Your task to perform on an android device: Clear the shopping cart on target.com. Search for amazon basics triple a on target.com, select the first entry, and add it to the cart. Image 0: 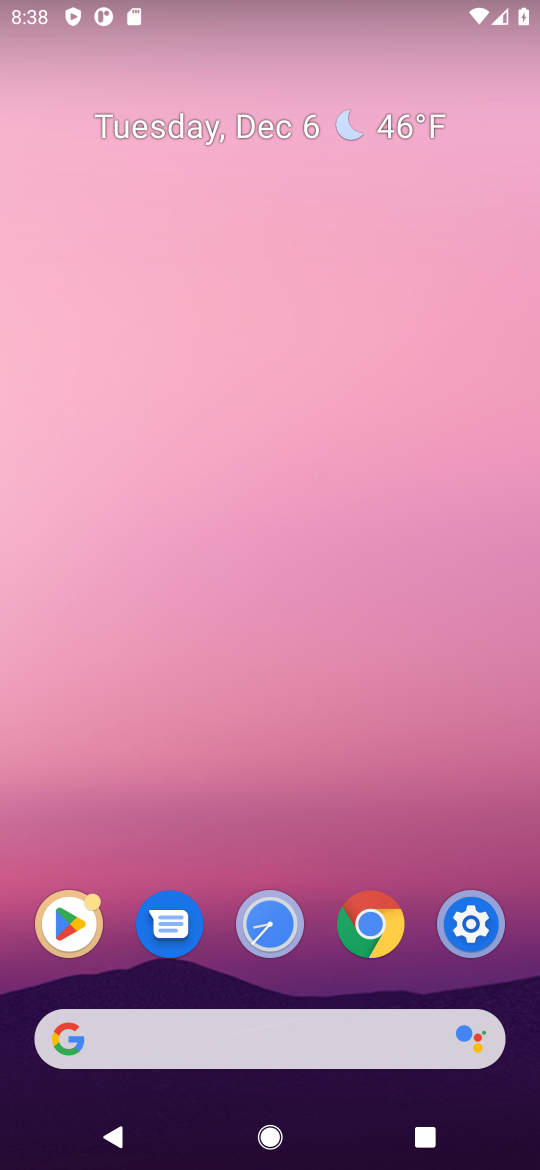
Step 0: click (347, 1019)
Your task to perform on an android device: Clear the shopping cart on target.com. Search for amazon basics triple a on target.com, select the first entry, and add it to the cart. Image 1: 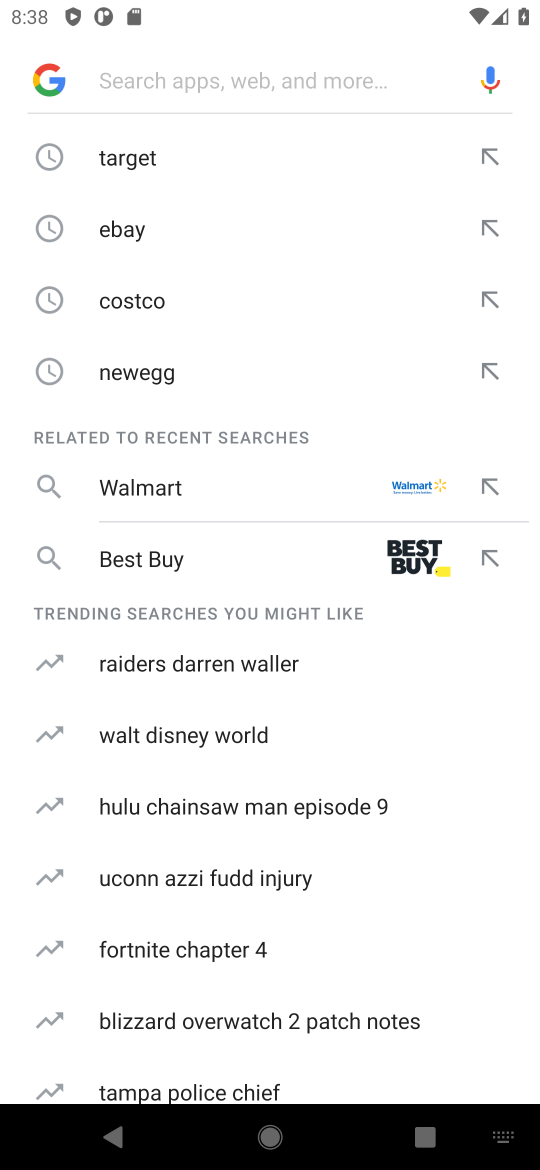
Step 1: type "target"
Your task to perform on an android device: Clear the shopping cart on target.com. Search for amazon basics triple a on target.com, select the first entry, and add it to the cart. Image 2: 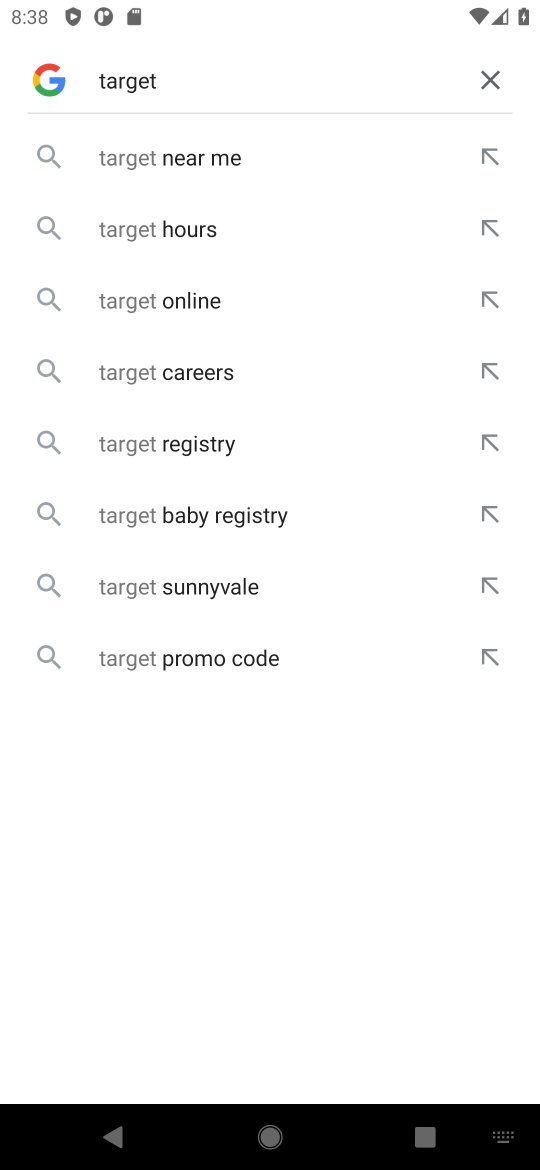
Step 2: click (200, 304)
Your task to perform on an android device: Clear the shopping cart on target.com. Search for amazon basics triple a on target.com, select the first entry, and add it to the cart. Image 3: 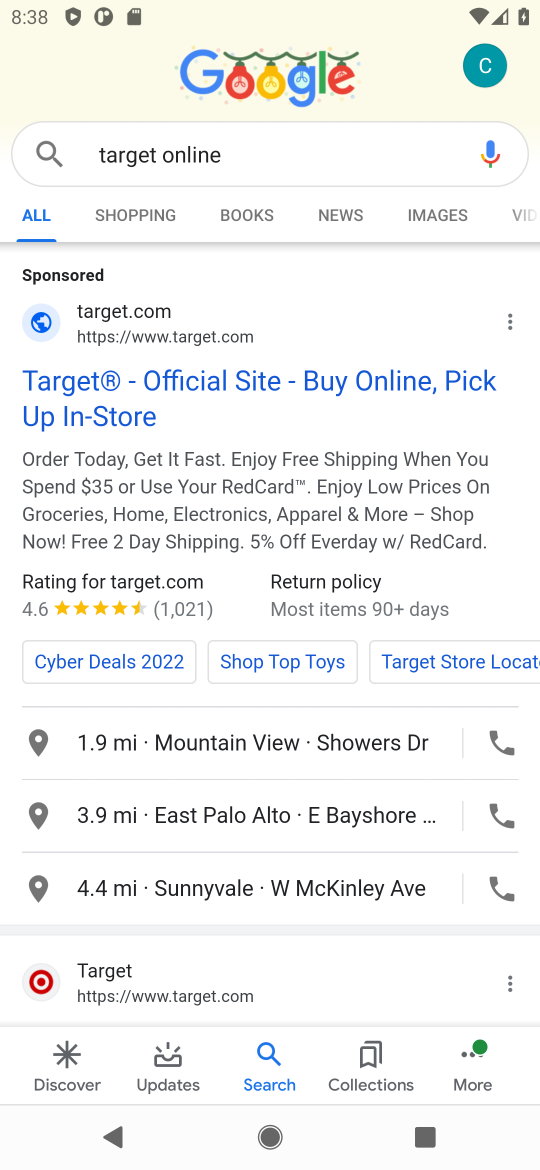
Step 3: click (54, 385)
Your task to perform on an android device: Clear the shopping cart on target.com. Search for amazon basics triple a on target.com, select the first entry, and add it to the cart. Image 4: 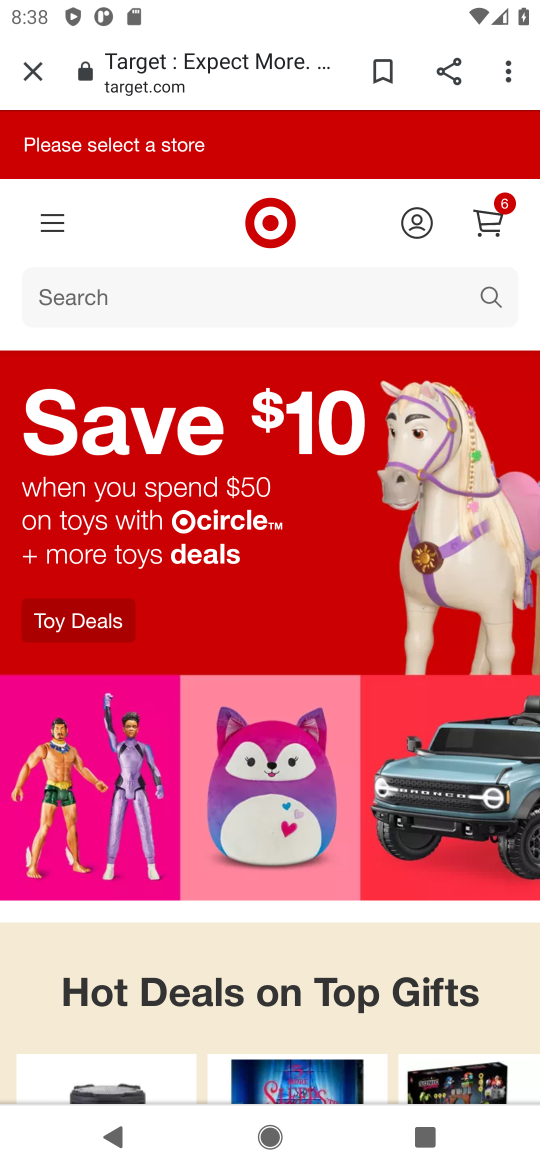
Step 4: click (292, 293)
Your task to perform on an android device: Clear the shopping cart on target.com. Search for amazon basics triple a on target.com, select the first entry, and add it to the cart. Image 5: 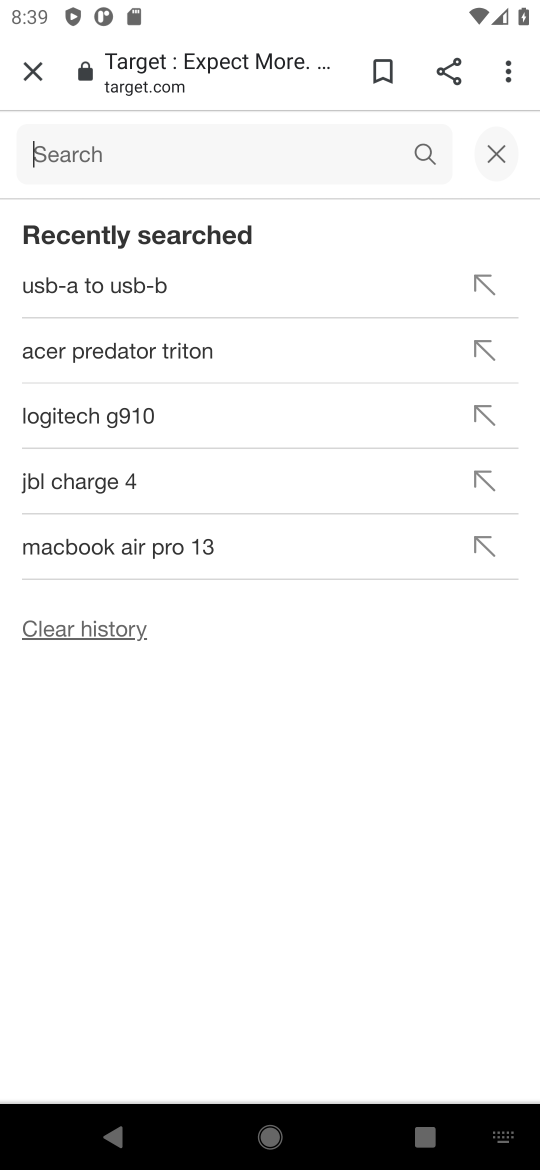
Step 5: task complete